Your task to perform on an android device: Open the calendar and show me this week's events? Image 0: 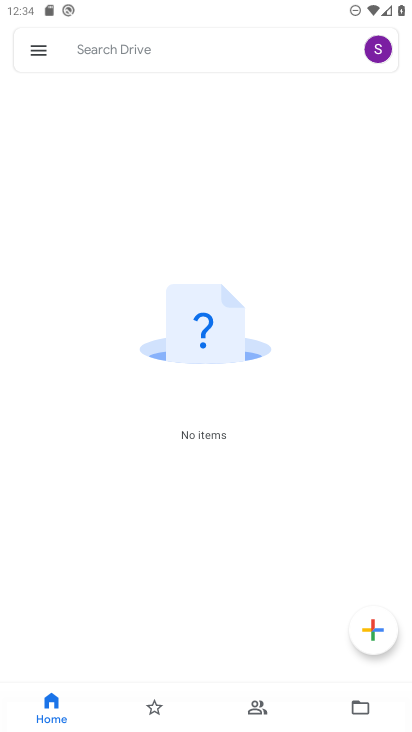
Step 0: press home button
Your task to perform on an android device: Open the calendar and show me this week's events? Image 1: 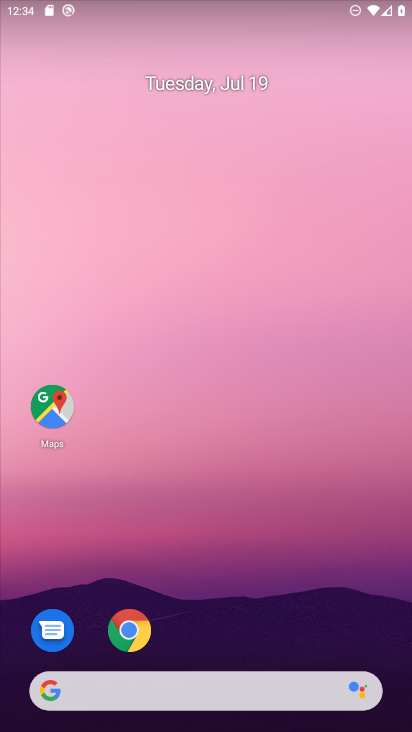
Step 1: drag from (202, 693) to (271, 174)
Your task to perform on an android device: Open the calendar and show me this week's events? Image 2: 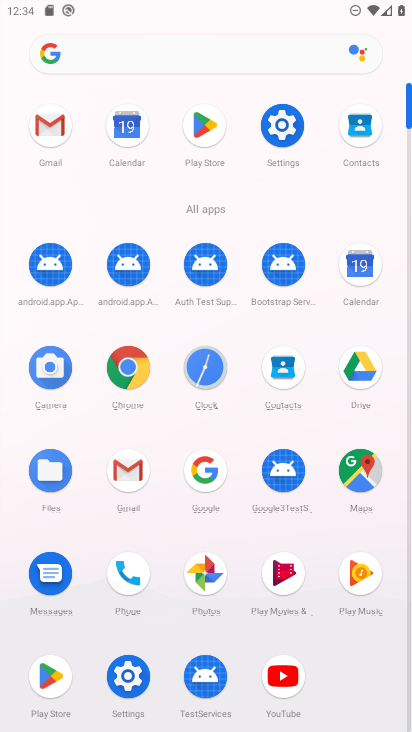
Step 2: click (361, 268)
Your task to perform on an android device: Open the calendar and show me this week's events? Image 3: 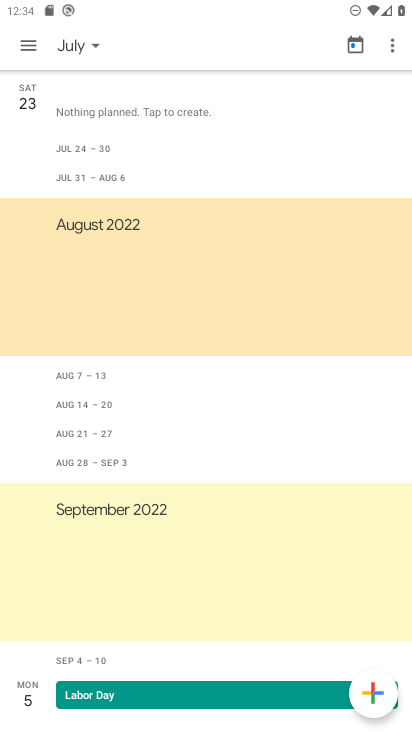
Step 3: click (74, 48)
Your task to perform on an android device: Open the calendar and show me this week's events? Image 4: 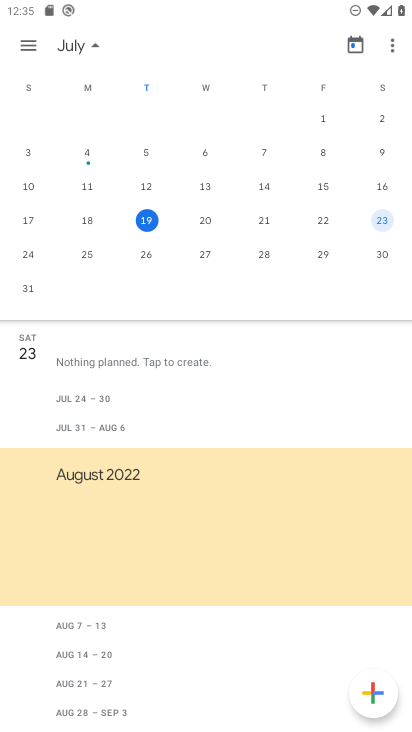
Step 4: click (142, 221)
Your task to perform on an android device: Open the calendar and show me this week's events? Image 5: 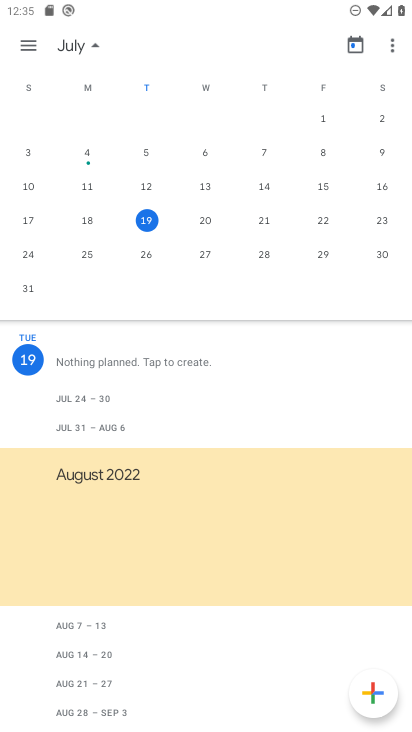
Step 5: click (34, 44)
Your task to perform on an android device: Open the calendar and show me this week's events? Image 6: 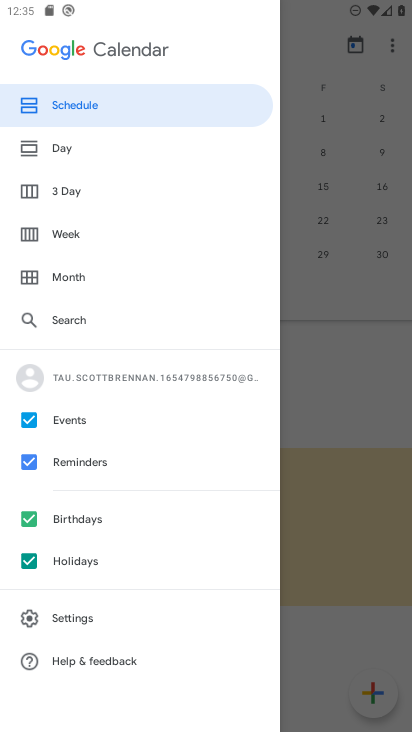
Step 6: click (75, 227)
Your task to perform on an android device: Open the calendar and show me this week's events? Image 7: 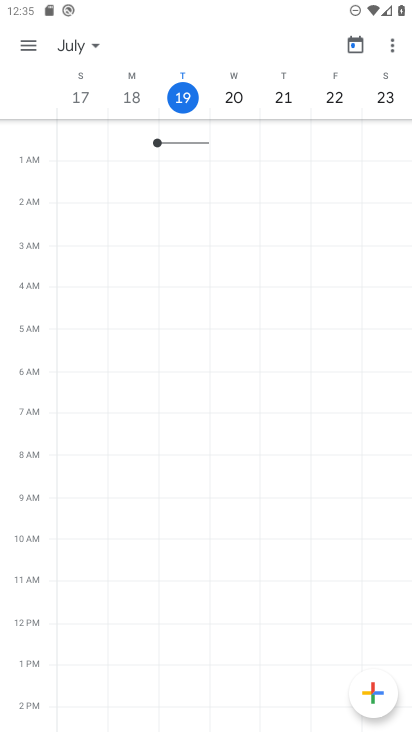
Step 7: click (22, 44)
Your task to perform on an android device: Open the calendar and show me this week's events? Image 8: 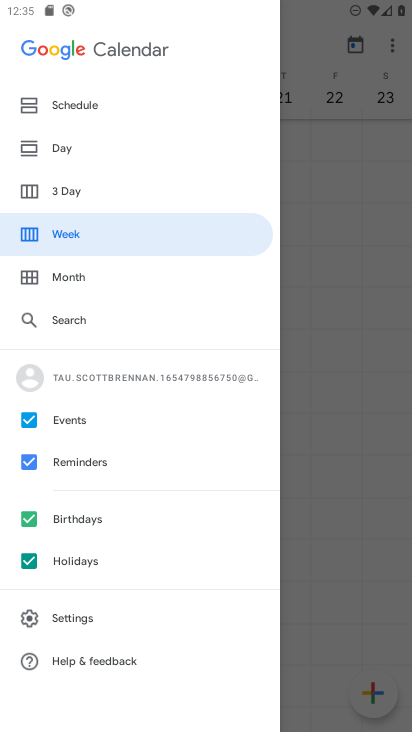
Step 8: click (91, 100)
Your task to perform on an android device: Open the calendar and show me this week's events? Image 9: 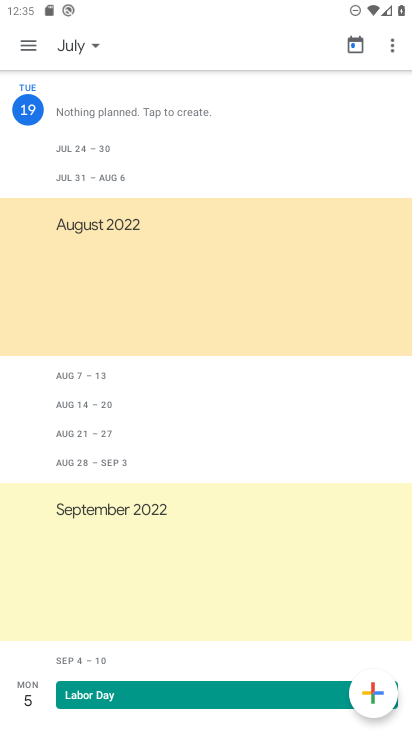
Step 9: task complete